Your task to perform on an android device: change the clock display to digital Image 0: 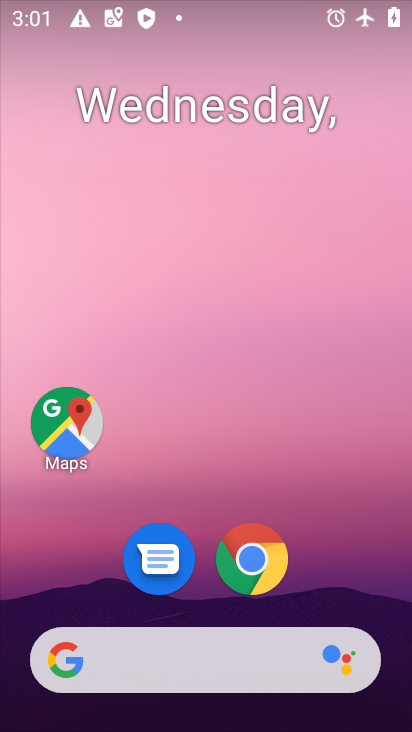
Step 0: drag from (195, 593) to (240, 64)
Your task to perform on an android device: change the clock display to digital Image 1: 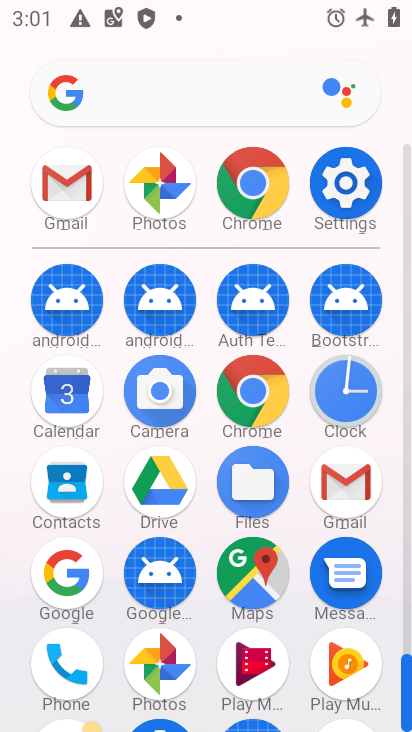
Step 1: click (348, 400)
Your task to perform on an android device: change the clock display to digital Image 2: 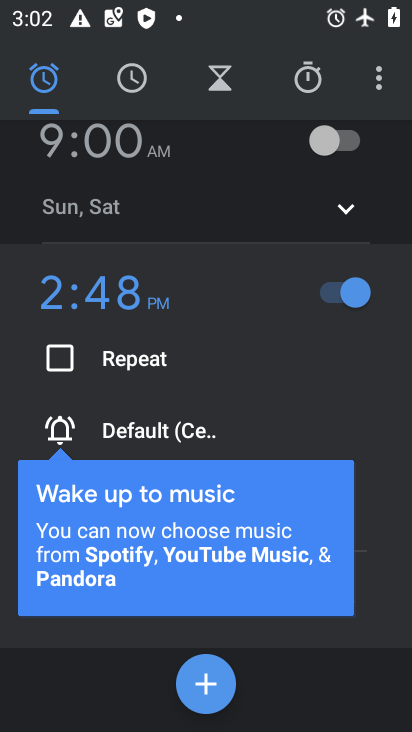
Step 2: click (378, 90)
Your task to perform on an android device: change the clock display to digital Image 3: 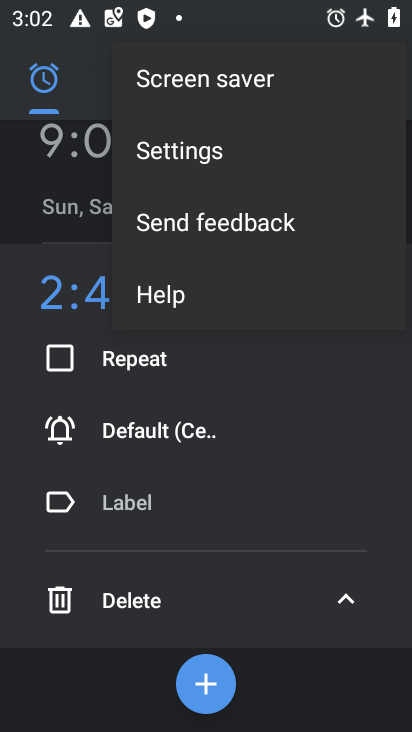
Step 3: click (169, 146)
Your task to perform on an android device: change the clock display to digital Image 4: 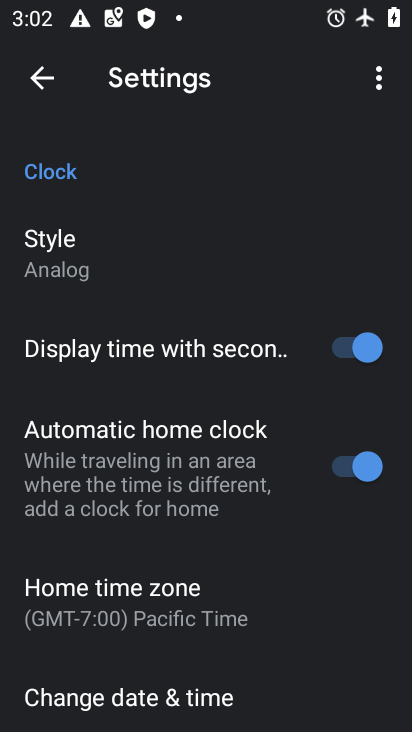
Step 4: click (55, 260)
Your task to perform on an android device: change the clock display to digital Image 5: 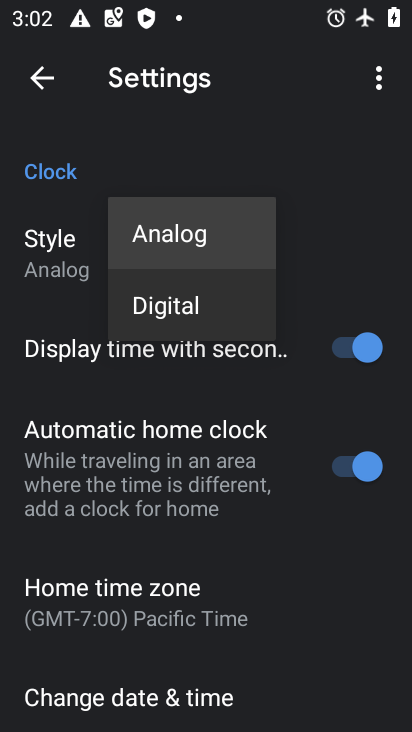
Step 5: click (170, 303)
Your task to perform on an android device: change the clock display to digital Image 6: 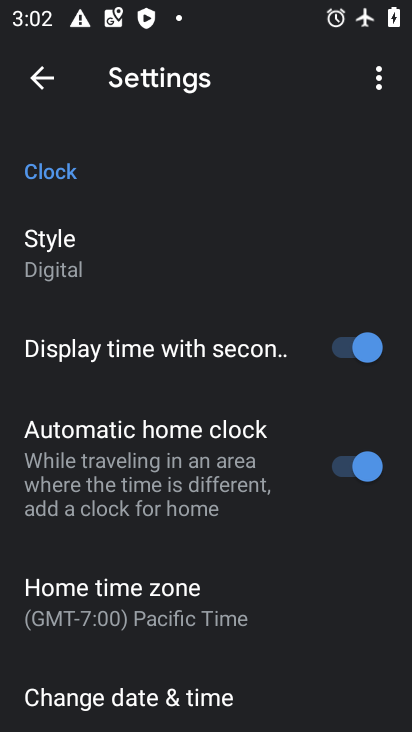
Step 6: task complete